Your task to perform on an android device: turn on the 12-hour format for clock Image 0: 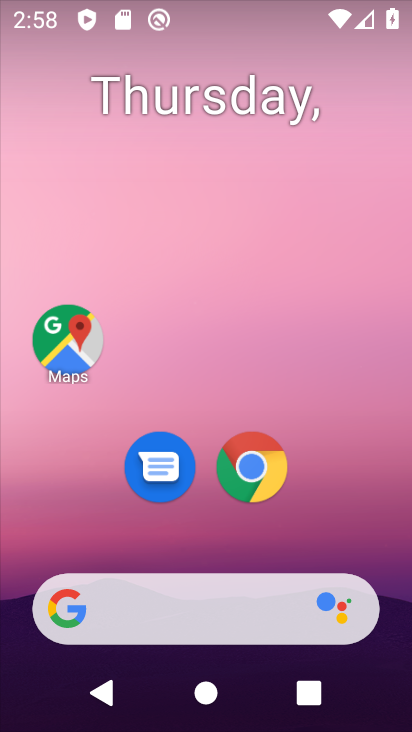
Step 0: drag from (259, 583) to (277, 154)
Your task to perform on an android device: turn on the 12-hour format for clock Image 1: 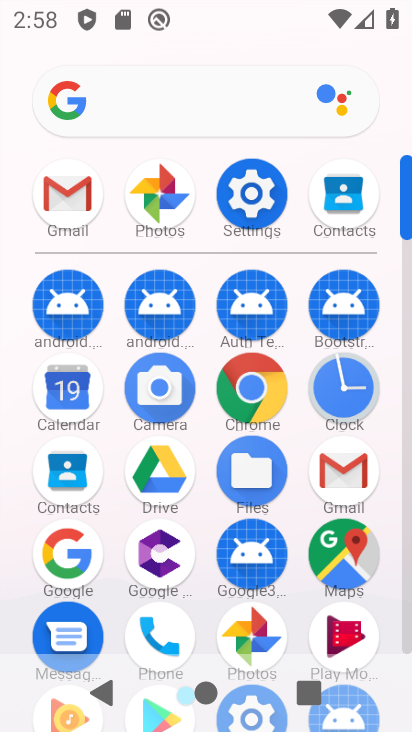
Step 1: click (265, 204)
Your task to perform on an android device: turn on the 12-hour format for clock Image 2: 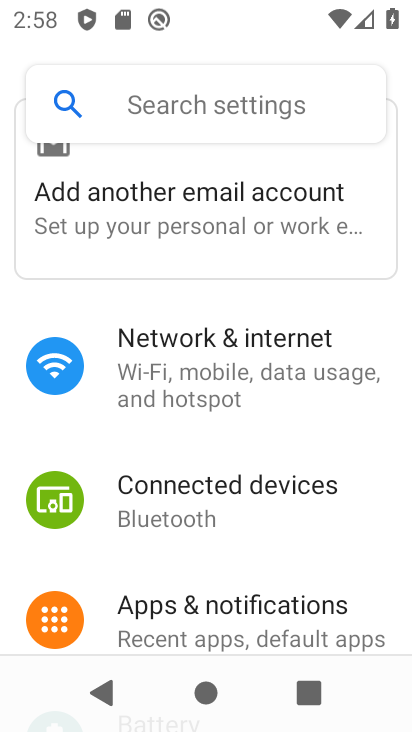
Step 2: drag from (225, 596) to (184, 21)
Your task to perform on an android device: turn on the 12-hour format for clock Image 3: 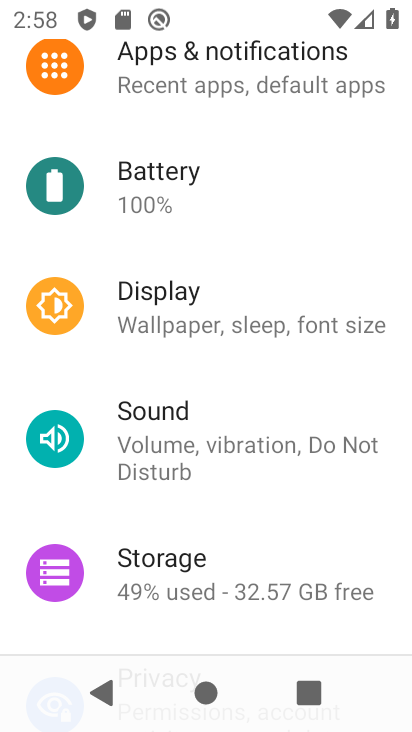
Step 3: drag from (195, 589) to (82, 9)
Your task to perform on an android device: turn on the 12-hour format for clock Image 4: 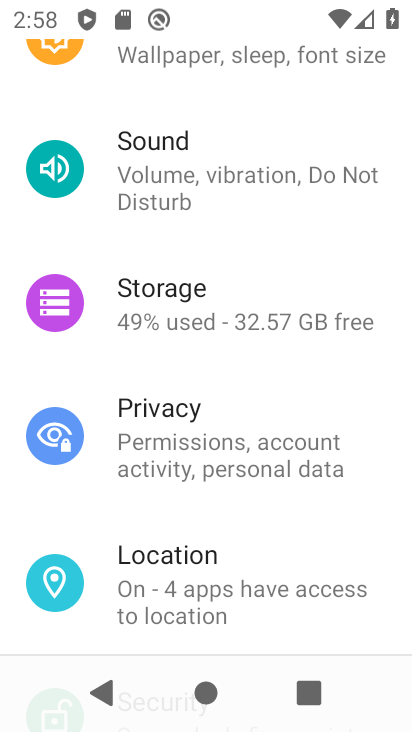
Step 4: drag from (230, 493) to (225, 11)
Your task to perform on an android device: turn on the 12-hour format for clock Image 5: 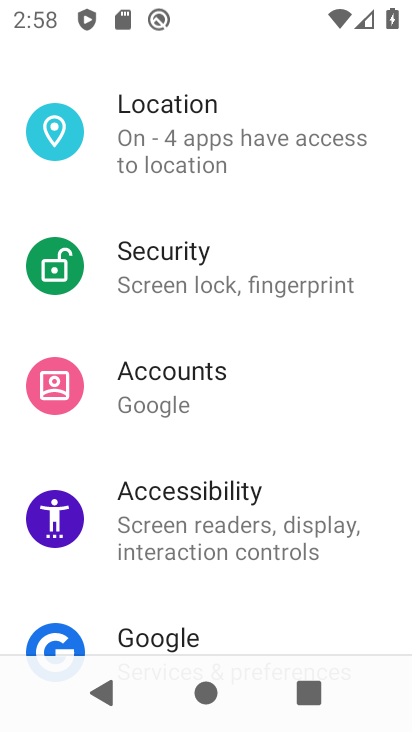
Step 5: drag from (217, 562) to (181, 91)
Your task to perform on an android device: turn on the 12-hour format for clock Image 6: 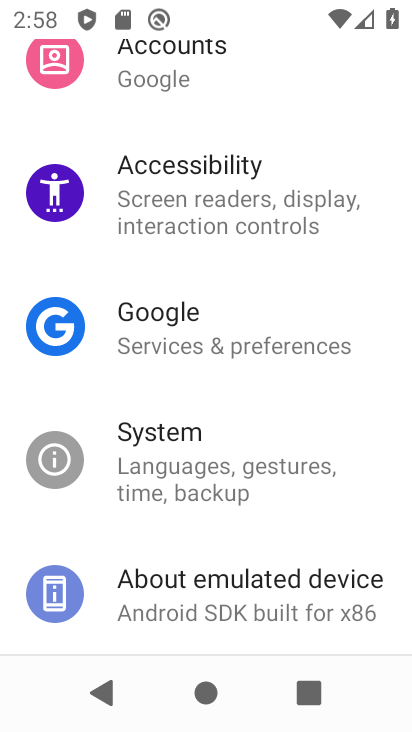
Step 6: click (186, 471)
Your task to perform on an android device: turn on the 12-hour format for clock Image 7: 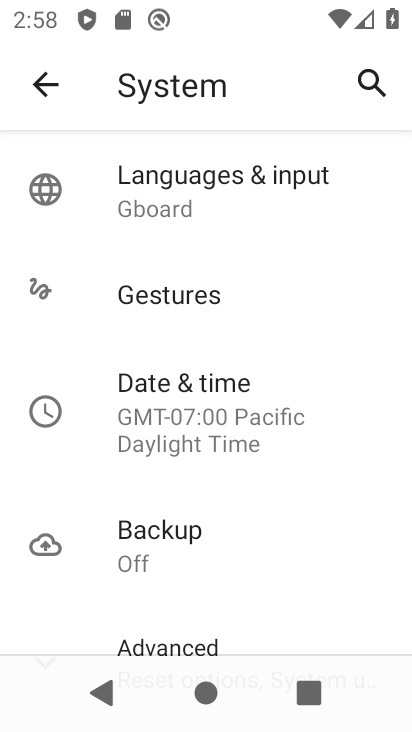
Step 7: click (184, 430)
Your task to perform on an android device: turn on the 12-hour format for clock Image 8: 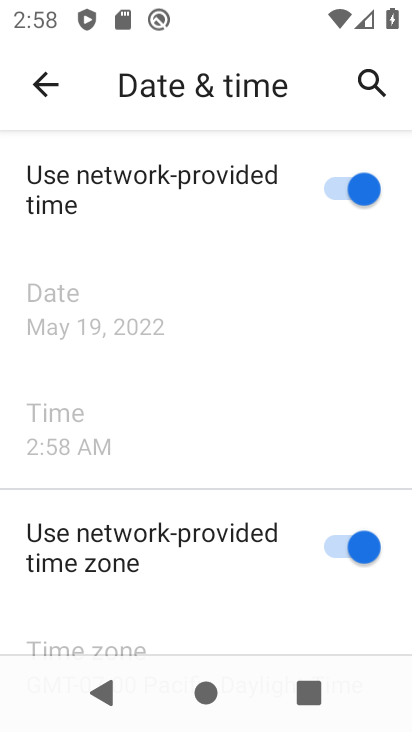
Step 8: task complete